Your task to perform on an android device: open the mobile data screen to see how much data has been used Image 0: 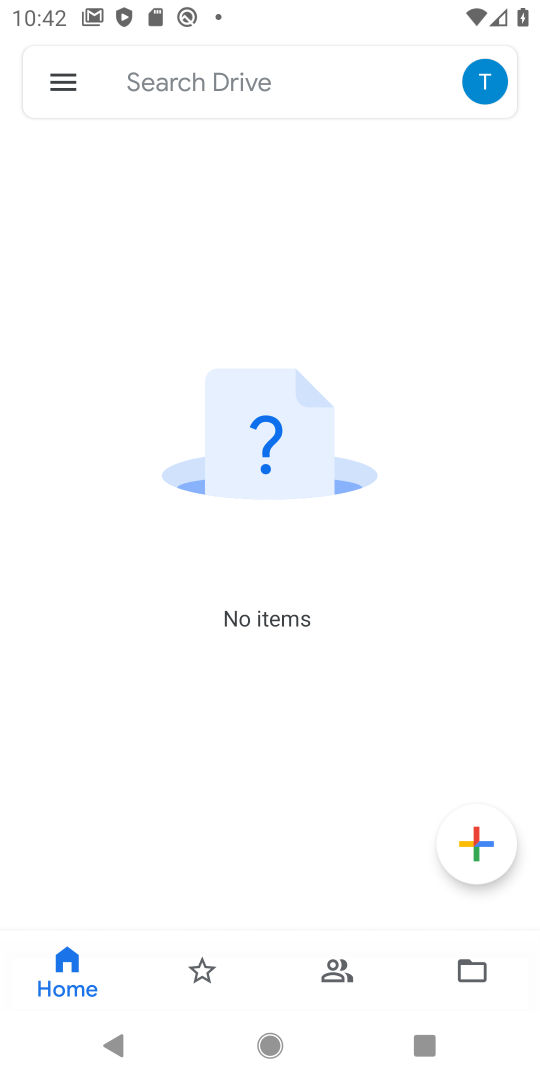
Step 0: drag from (246, 10) to (270, 623)
Your task to perform on an android device: open the mobile data screen to see how much data has been used Image 1: 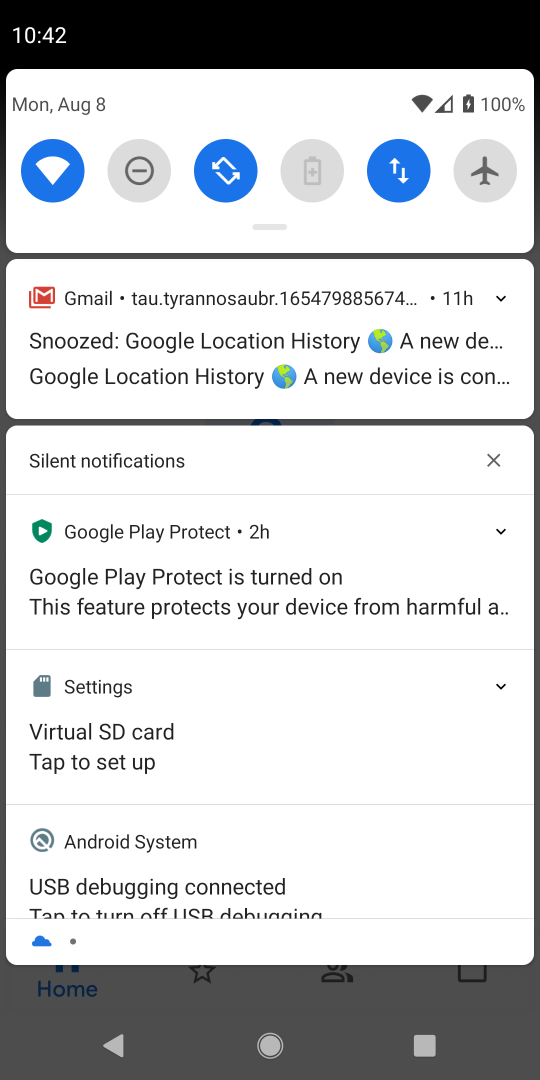
Step 1: click (390, 180)
Your task to perform on an android device: open the mobile data screen to see how much data has been used Image 2: 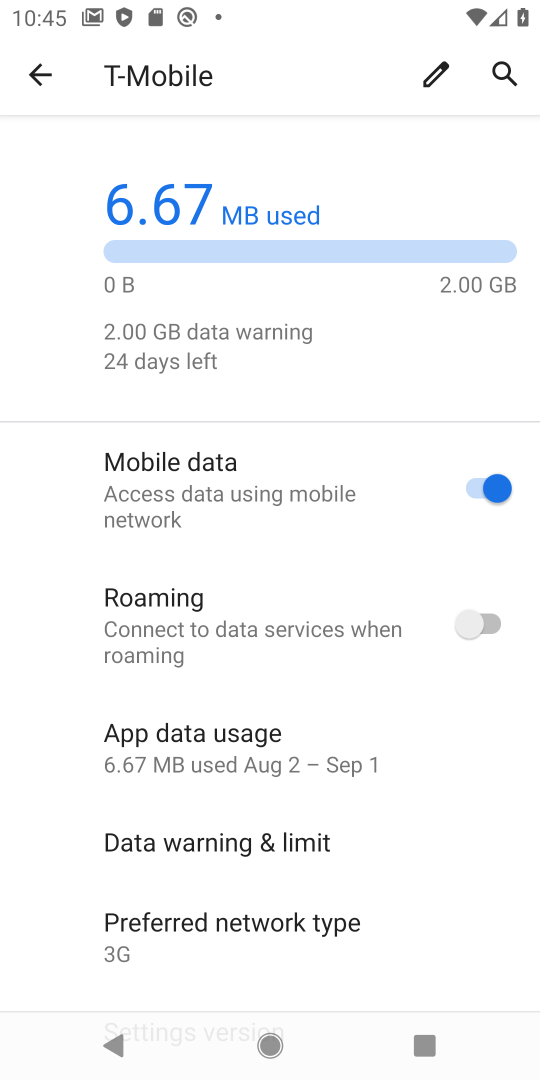
Step 2: task complete